Your task to perform on an android device: open wifi settings Image 0: 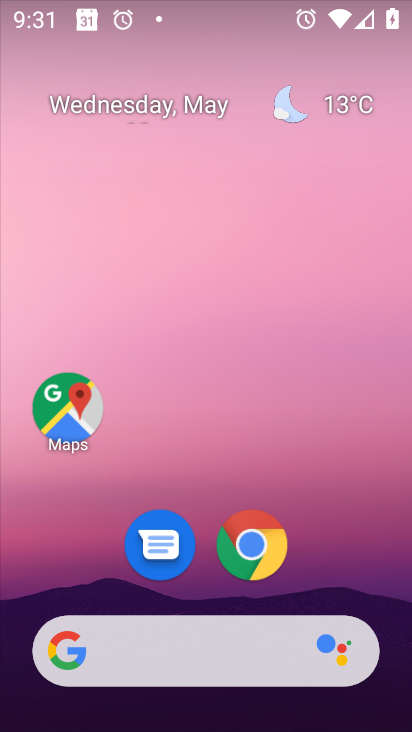
Step 0: drag from (322, 323) to (261, 3)
Your task to perform on an android device: open wifi settings Image 1: 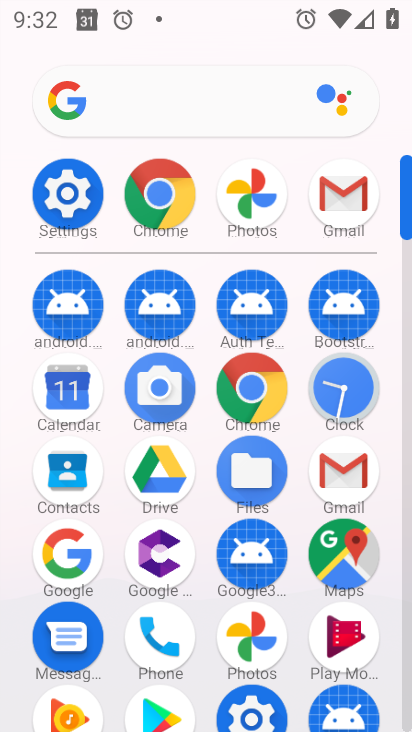
Step 1: click (63, 190)
Your task to perform on an android device: open wifi settings Image 2: 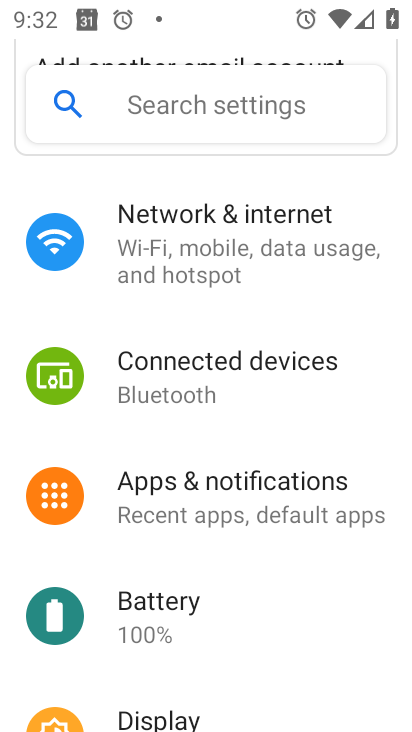
Step 2: click (210, 236)
Your task to perform on an android device: open wifi settings Image 3: 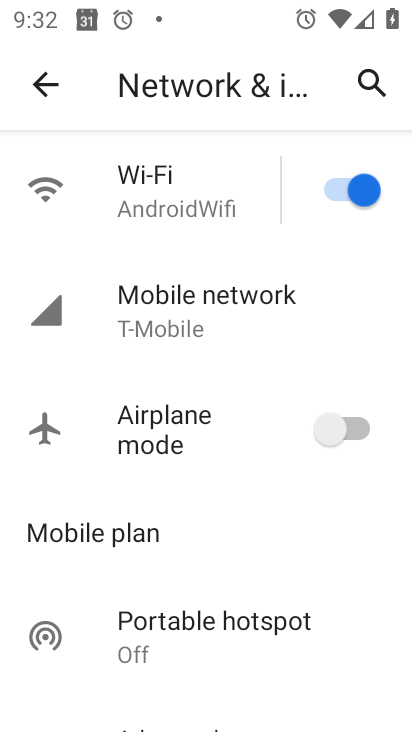
Step 3: click (177, 196)
Your task to perform on an android device: open wifi settings Image 4: 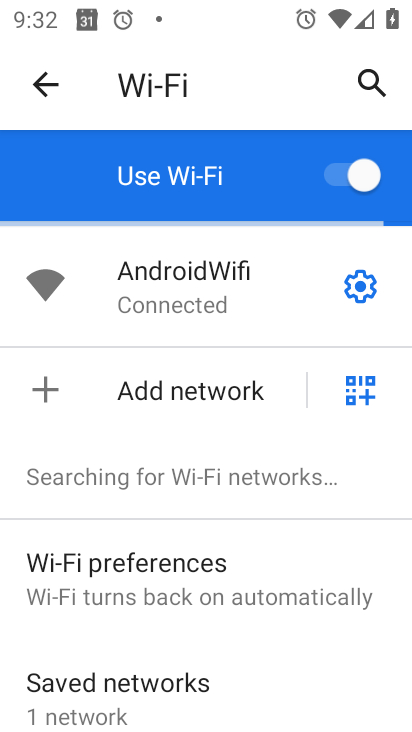
Step 4: task complete